Your task to perform on an android device: find snoozed emails in the gmail app Image 0: 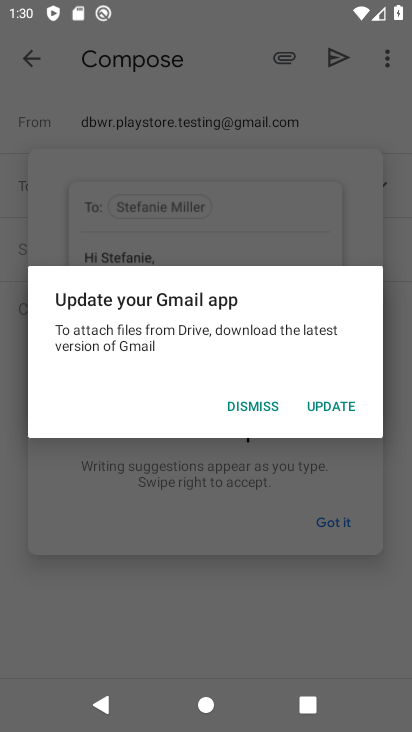
Step 0: press home button
Your task to perform on an android device: find snoozed emails in the gmail app Image 1: 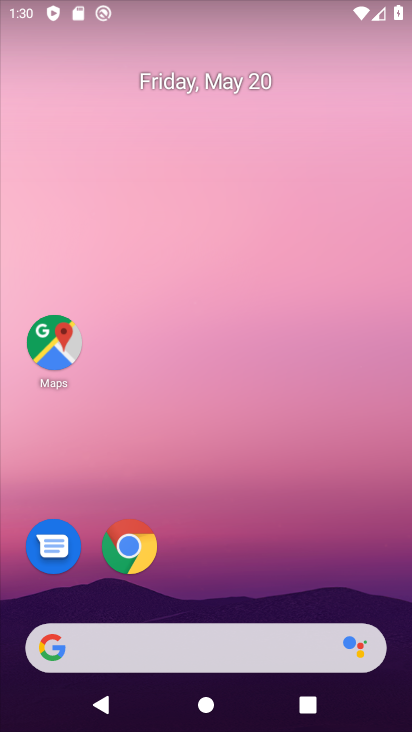
Step 1: drag from (268, 599) to (199, 154)
Your task to perform on an android device: find snoozed emails in the gmail app Image 2: 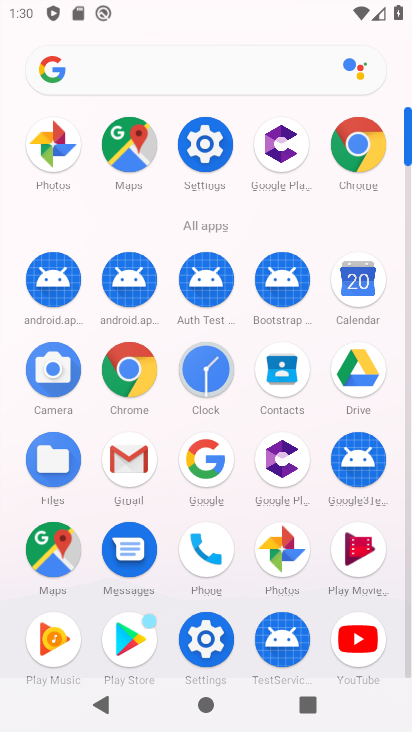
Step 2: click (131, 465)
Your task to perform on an android device: find snoozed emails in the gmail app Image 3: 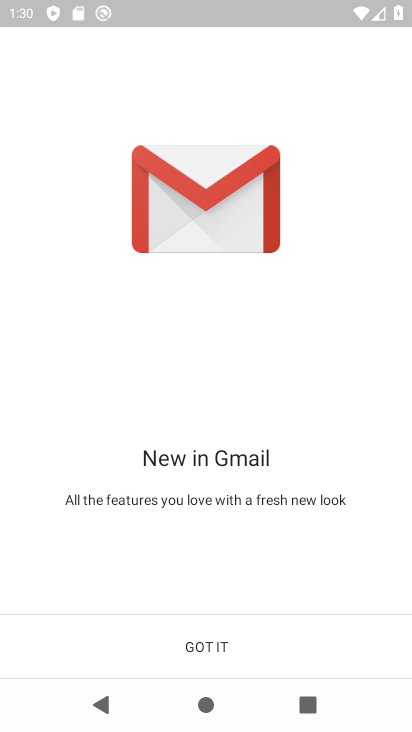
Step 3: click (222, 641)
Your task to perform on an android device: find snoozed emails in the gmail app Image 4: 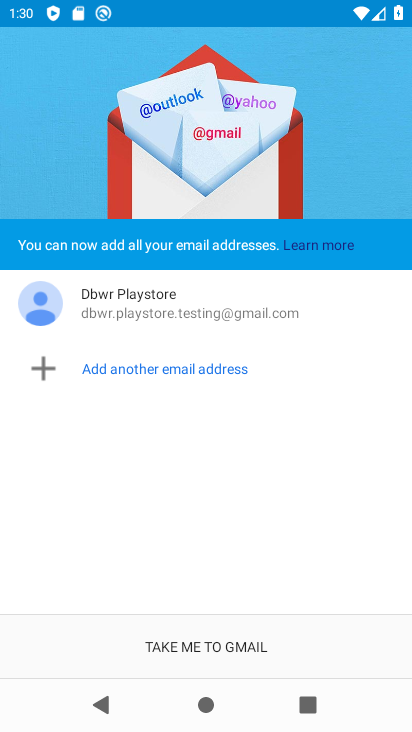
Step 4: click (222, 641)
Your task to perform on an android device: find snoozed emails in the gmail app Image 5: 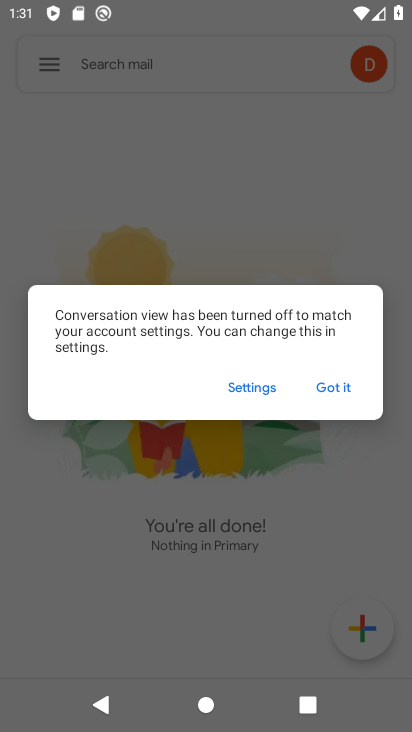
Step 5: click (332, 405)
Your task to perform on an android device: find snoozed emails in the gmail app Image 6: 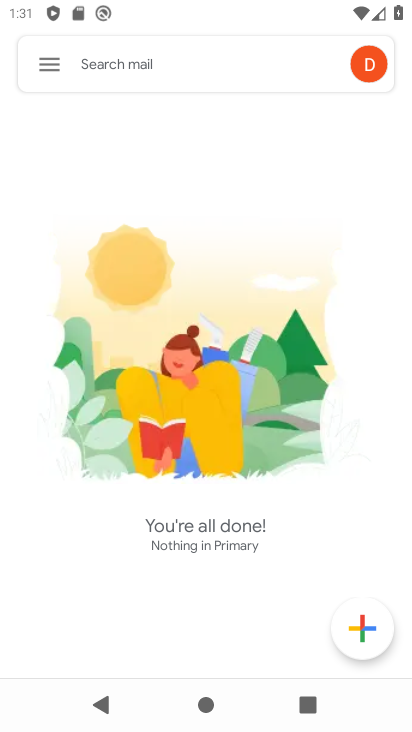
Step 6: click (46, 68)
Your task to perform on an android device: find snoozed emails in the gmail app Image 7: 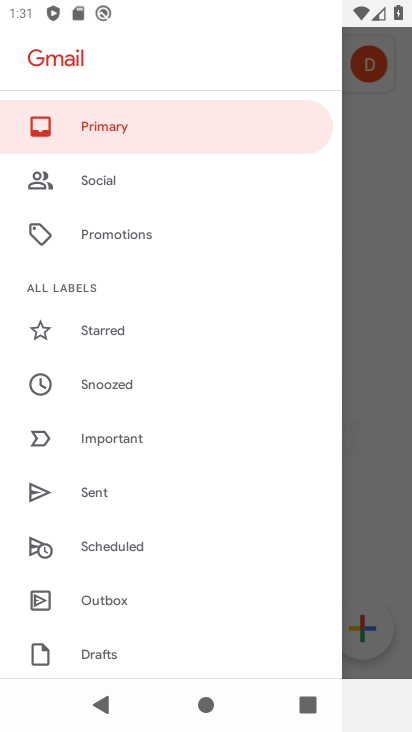
Step 7: click (188, 383)
Your task to perform on an android device: find snoozed emails in the gmail app Image 8: 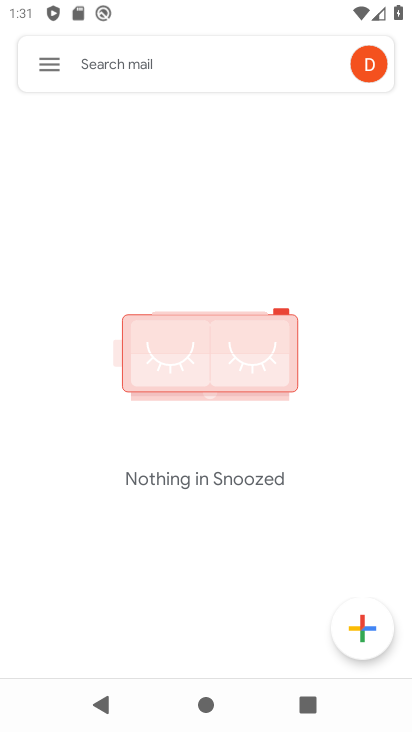
Step 8: task complete